Your task to perform on an android device: Go to location settings Image 0: 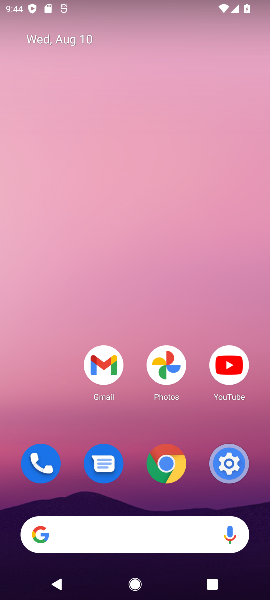
Step 0: click (216, 466)
Your task to perform on an android device: Go to location settings Image 1: 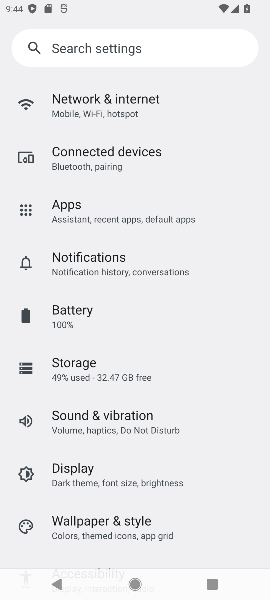
Step 1: drag from (222, 493) to (170, 369)
Your task to perform on an android device: Go to location settings Image 2: 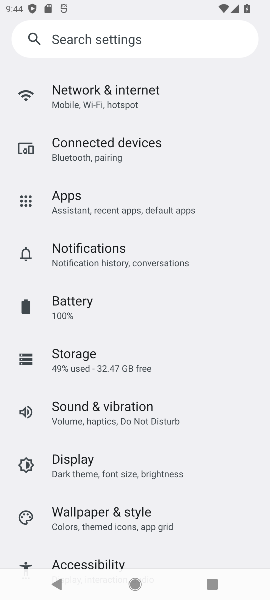
Step 2: drag from (206, 529) to (151, 314)
Your task to perform on an android device: Go to location settings Image 3: 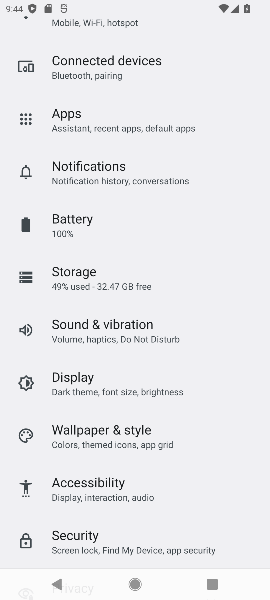
Step 3: drag from (217, 509) to (140, 245)
Your task to perform on an android device: Go to location settings Image 4: 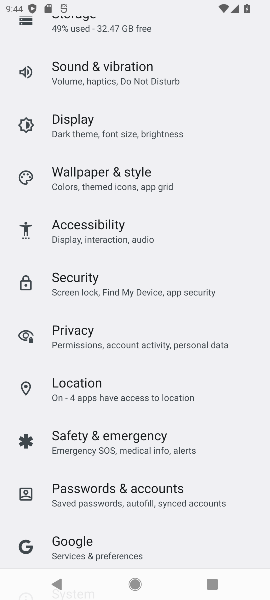
Step 4: click (89, 380)
Your task to perform on an android device: Go to location settings Image 5: 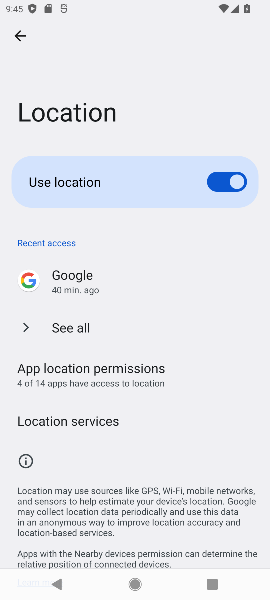
Step 5: task complete